Your task to perform on an android device: turn off wifi Image 0: 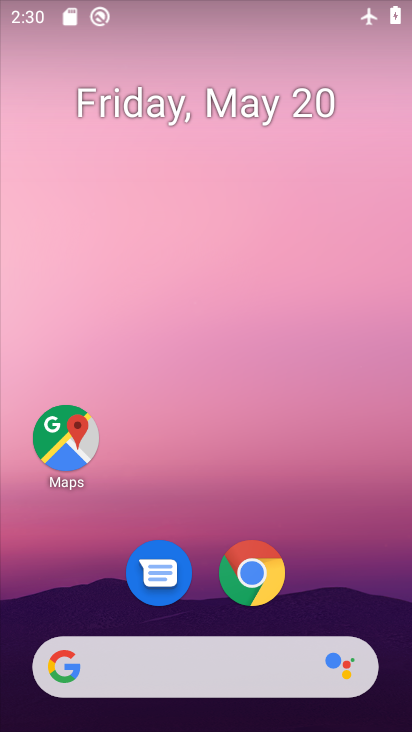
Step 0: drag from (204, 622) to (192, 138)
Your task to perform on an android device: turn off wifi Image 1: 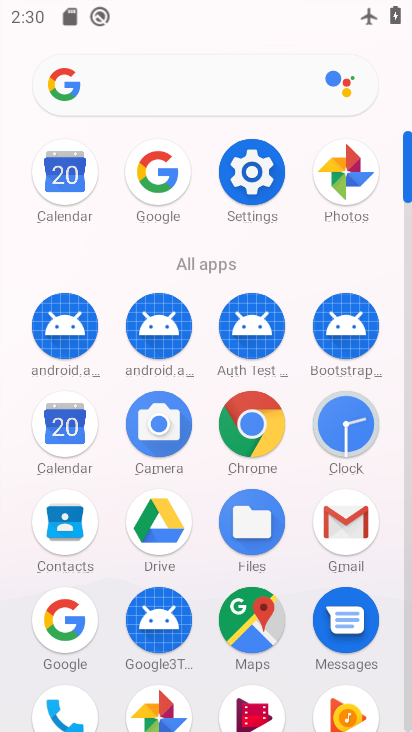
Step 1: click (240, 149)
Your task to perform on an android device: turn off wifi Image 2: 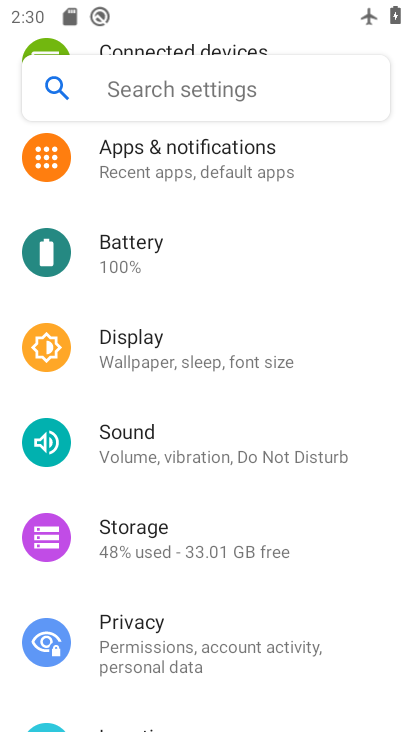
Step 2: drag from (240, 248) to (245, 502)
Your task to perform on an android device: turn off wifi Image 3: 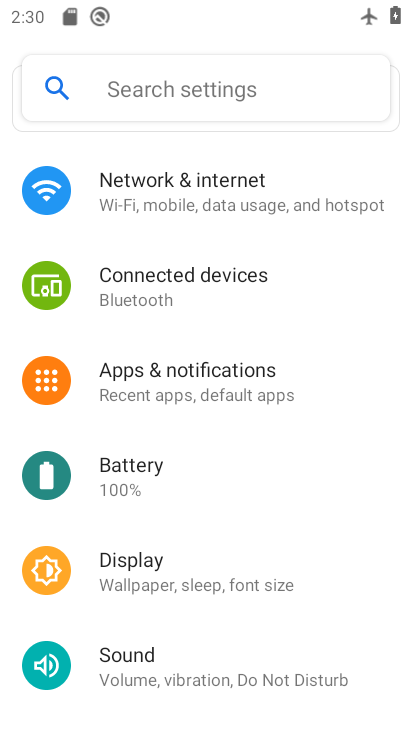
Step 3: drag from (233, 248) to (237, 455)
Your task to perform on an android device: turn off wifi Image 4: 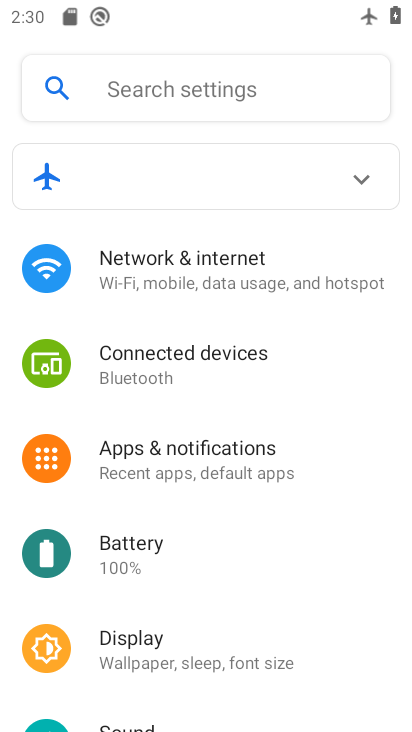
Step 4: click (224, 243)
Your task to perform on an android device: turn off wifi Image 5: 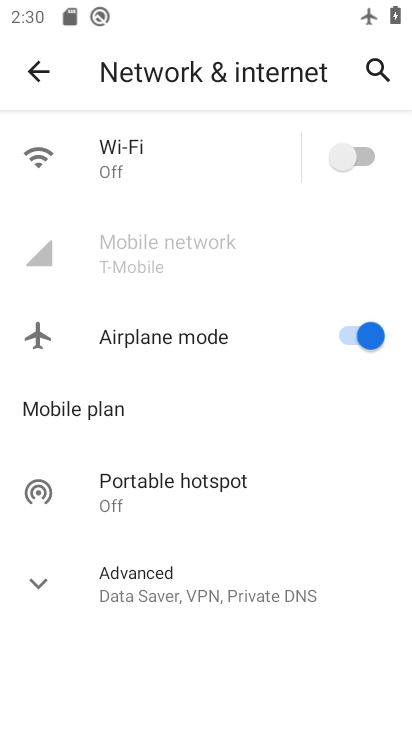
Step 5: task complete